Your task to perform on an android device: Open the calendar and show me this week's events Image 0: 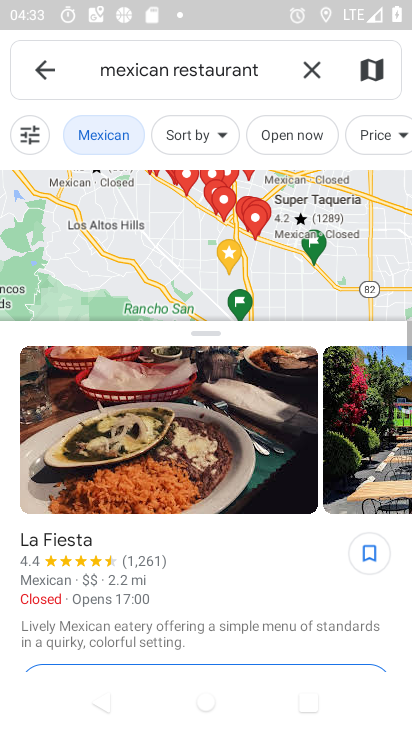
Step 0: press back button
Your task to perform on an android device: Open the calendar and show me this week's events Image 1: 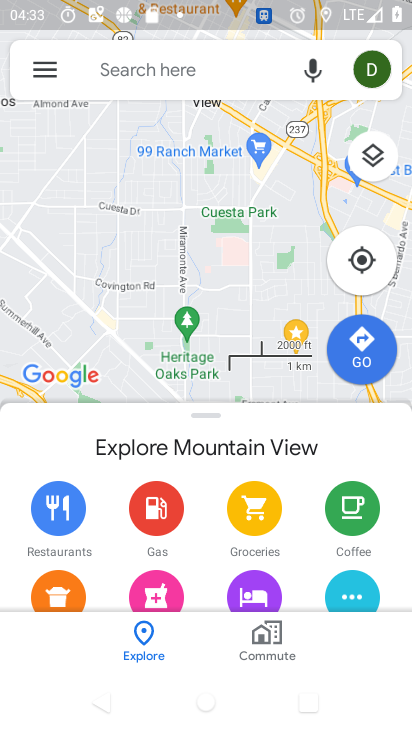
Step 1: press back button
Your task to perform on an android device: Open the calendar and show me this week's events Image 2: 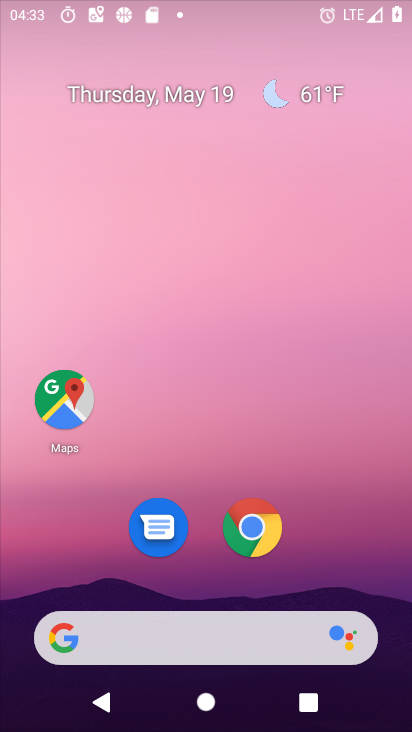
Step 2: drag from (155, 515) to (245, 70)
Your task to perform on an android device: Open the calendar and show me this week's events Image 3: 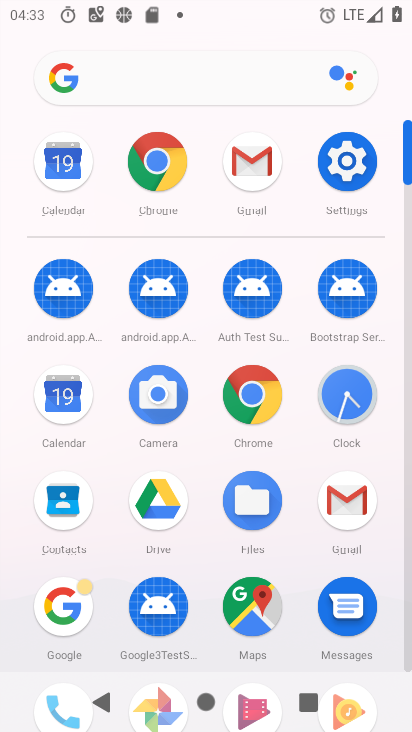
Step 3: click (64, 408)
Your task to perform on an android device: Open the calendar and show me this week's events Image 4: 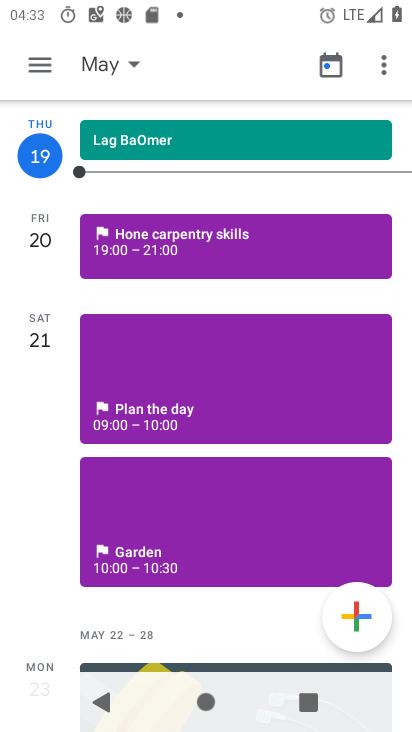
Step 4: click (131, 66)
Your task to perform on an android device: Open the calendar and show me this week's events Image 5: 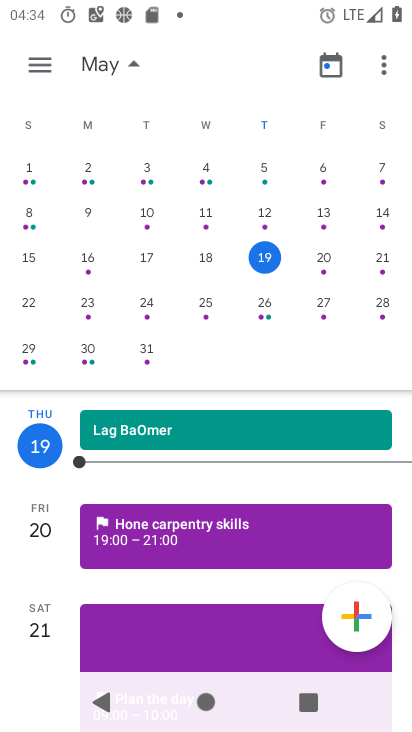
Step 5: click (268, 250)
Your task to perform on an android device: Open the calendar and show me this week's events Image 6: 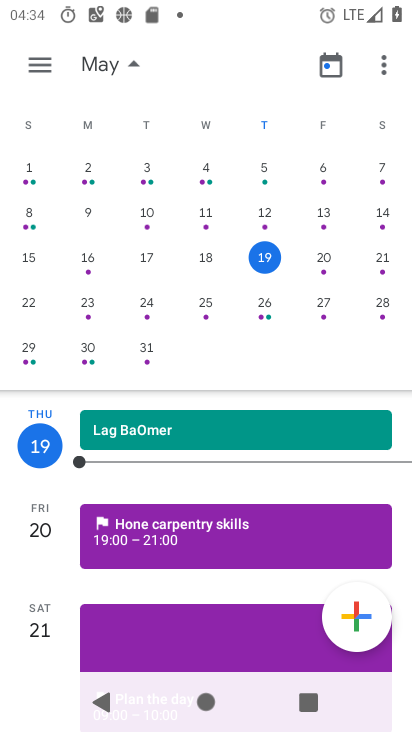
Step 6: drag from (111, 624) to (248, 165)
Your task to perform on an android device: Open the calendar and show me this week's events Image 7: 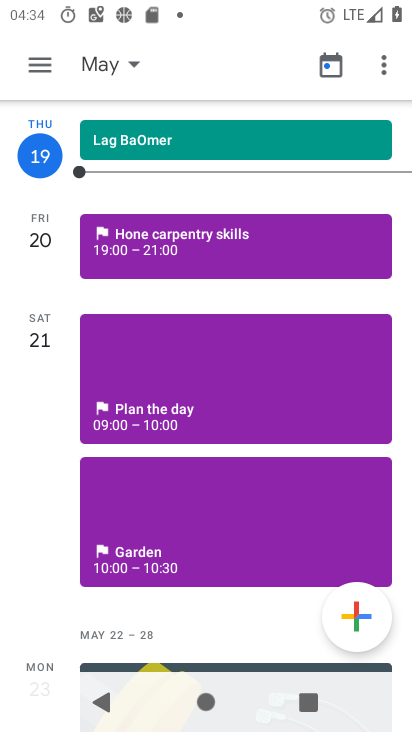
Step 7: click (176, 382)
Your task to perform on an android device: Open the calendar and show me this week's events Image 8: 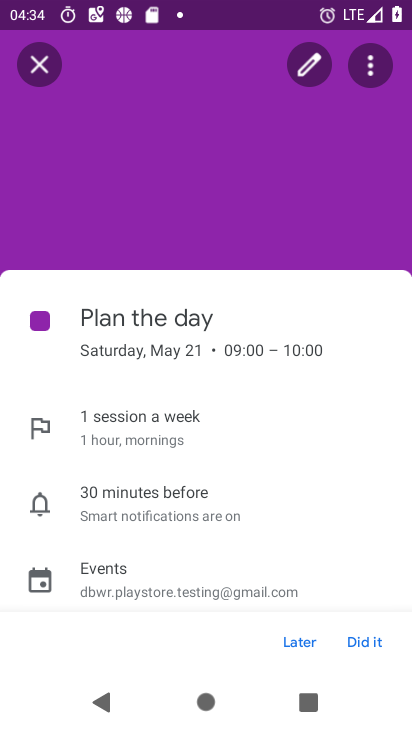
Step 8: task complete